Your task to perform on an android device: Search for alienware aurora on walmart, select the first entry, add it to the cart, then select checkout. Image 0: 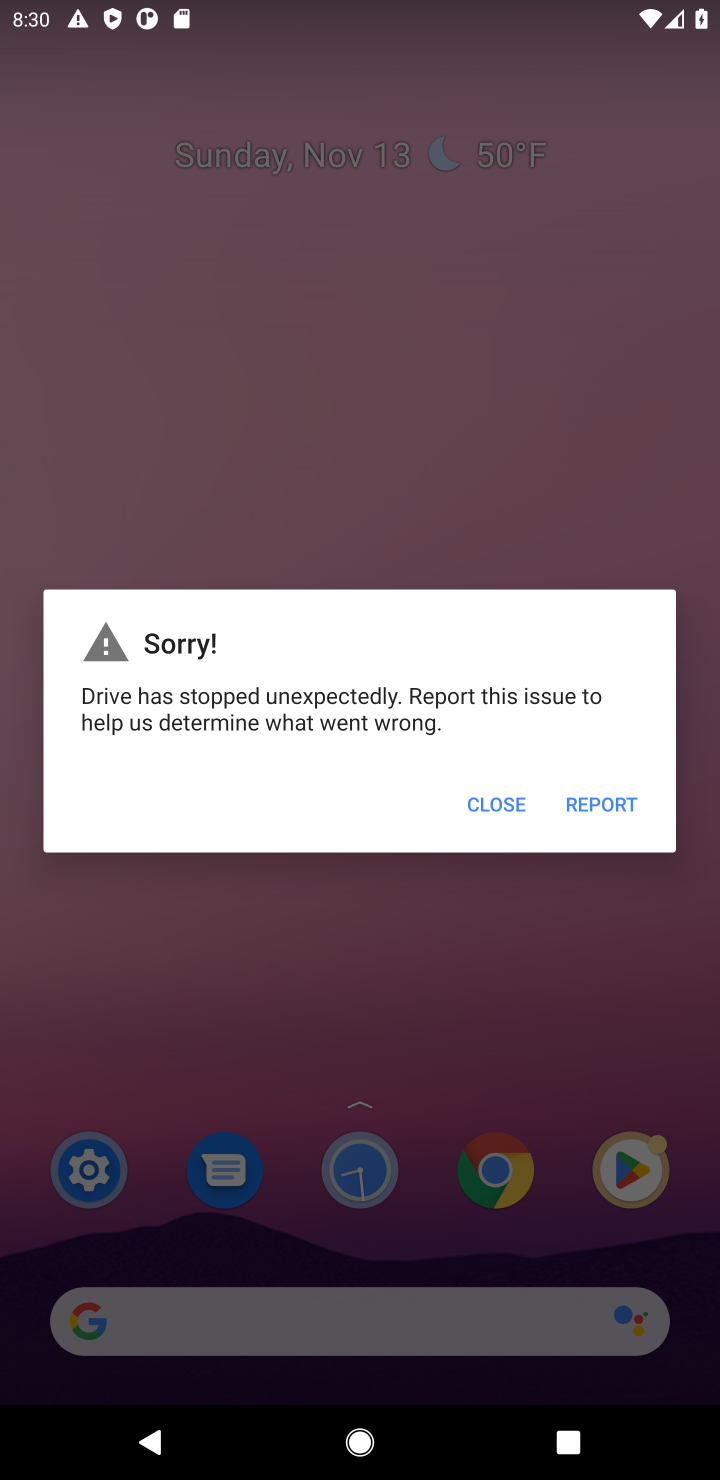
Step 0: press home button
Your task to perform on an android device: Search for alienware aurora on walmart, select the first entry, add it to the cart, then select checkout. Image 1: 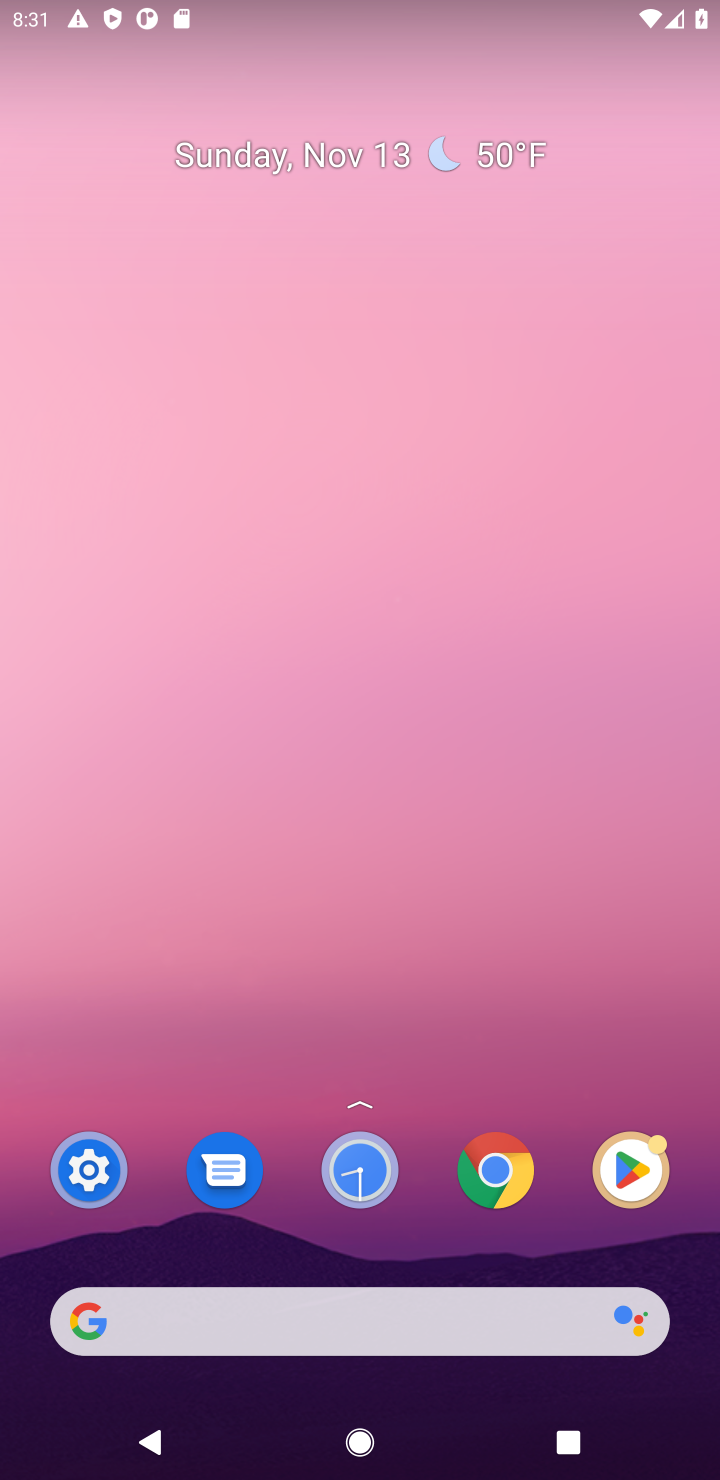
Step 1: click (381, 1325)
Your task to perform on an android device: Search for alienware aurora on walmart, select the first entry, add it to the cart, then select checkout. Image 2: 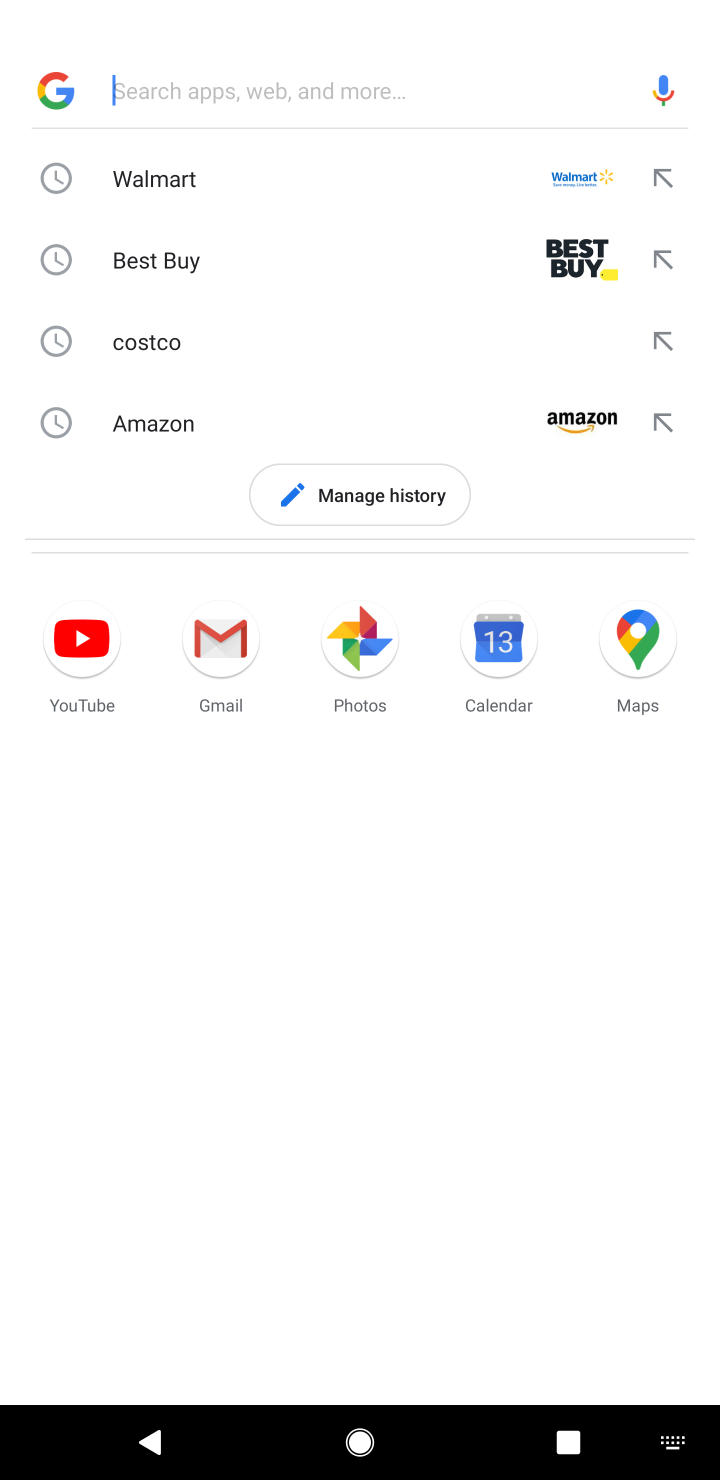
Step 2: type "walmart"
Your task to perform on an android device: Search for alienware aurora on walmart, select the first entry, add it to the cart, then select checkout. Image 3: 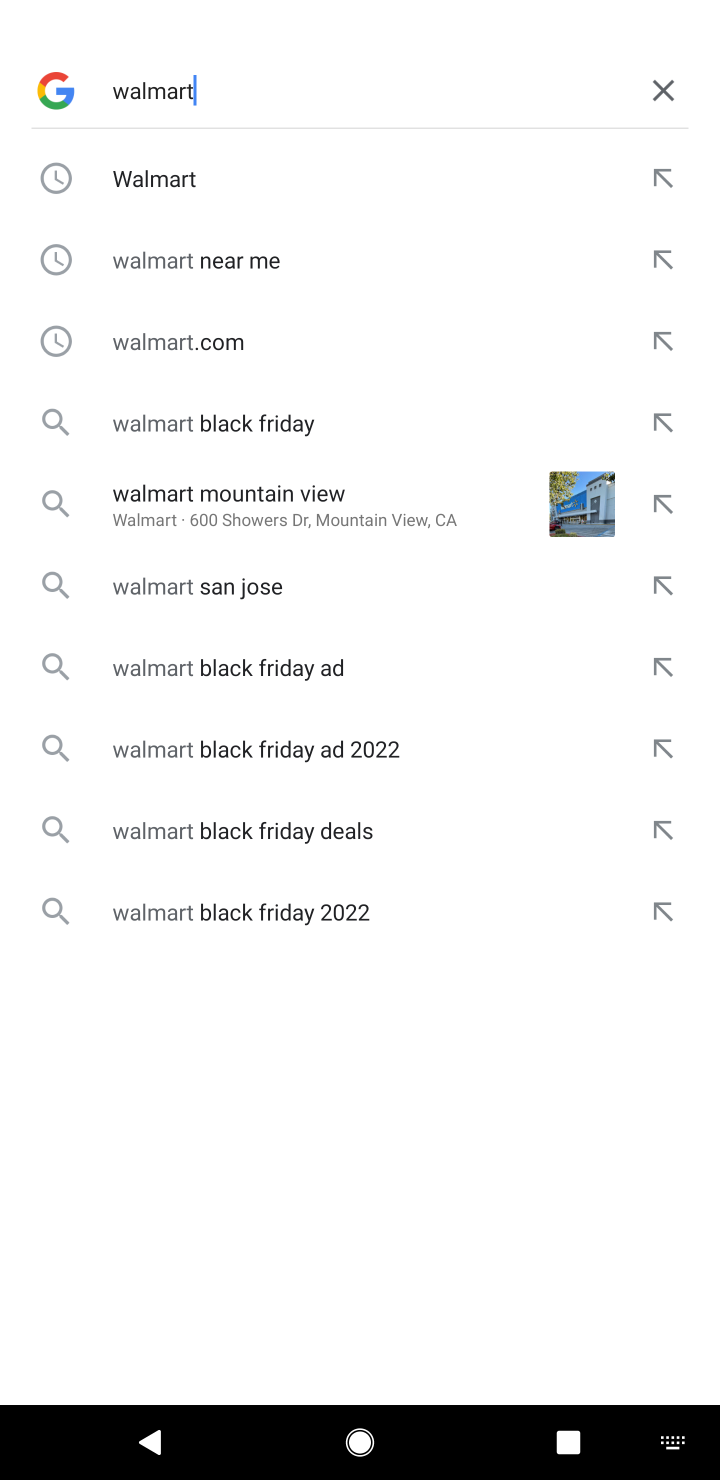
Step 3: click (305, 189)
Your task to perform on an android device: Search for alienware aurora on walmart, select the first entry, add it to the cart, then select checkout. Image 4: 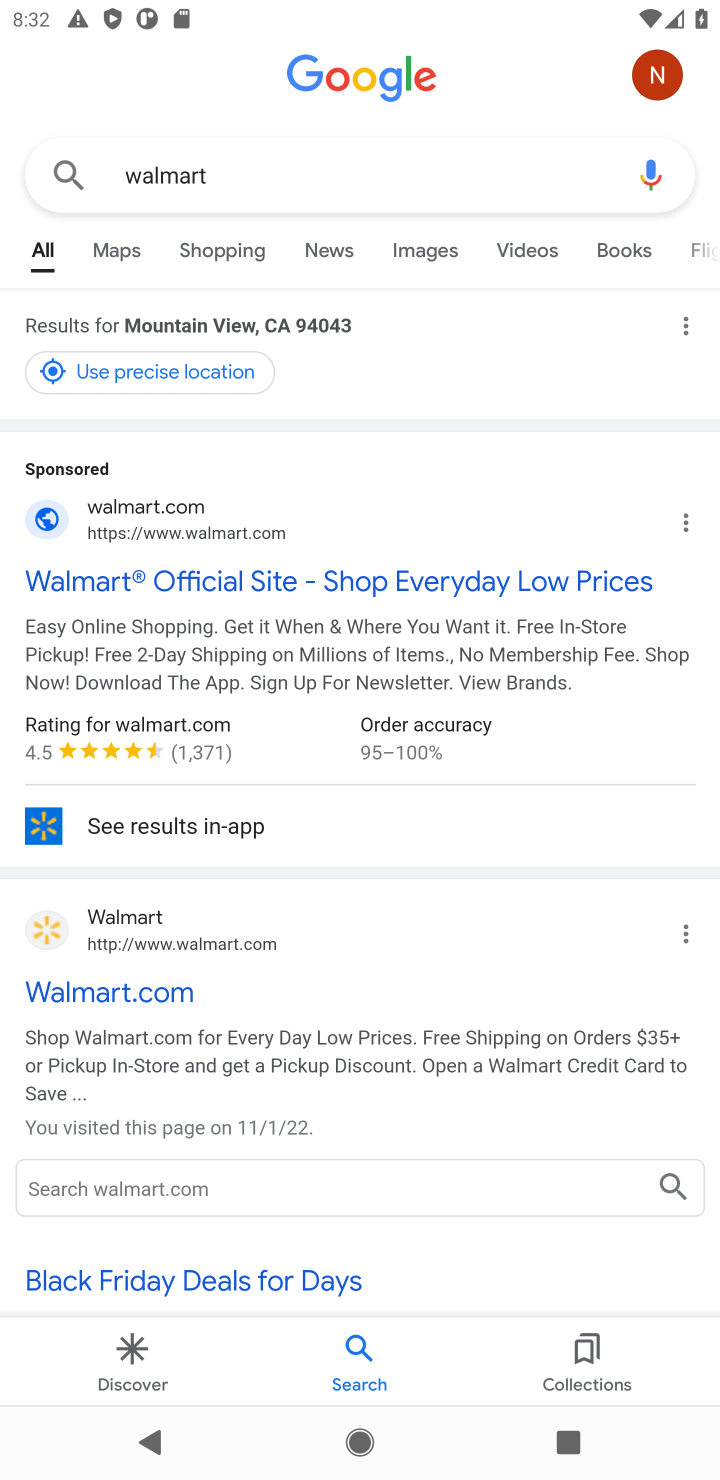
Step 4: click (211, 556)
Your task to perform on an android device: Search for alienware aurora on walmart, select the first entry, add it to the cart, then select checkout. Image 5: 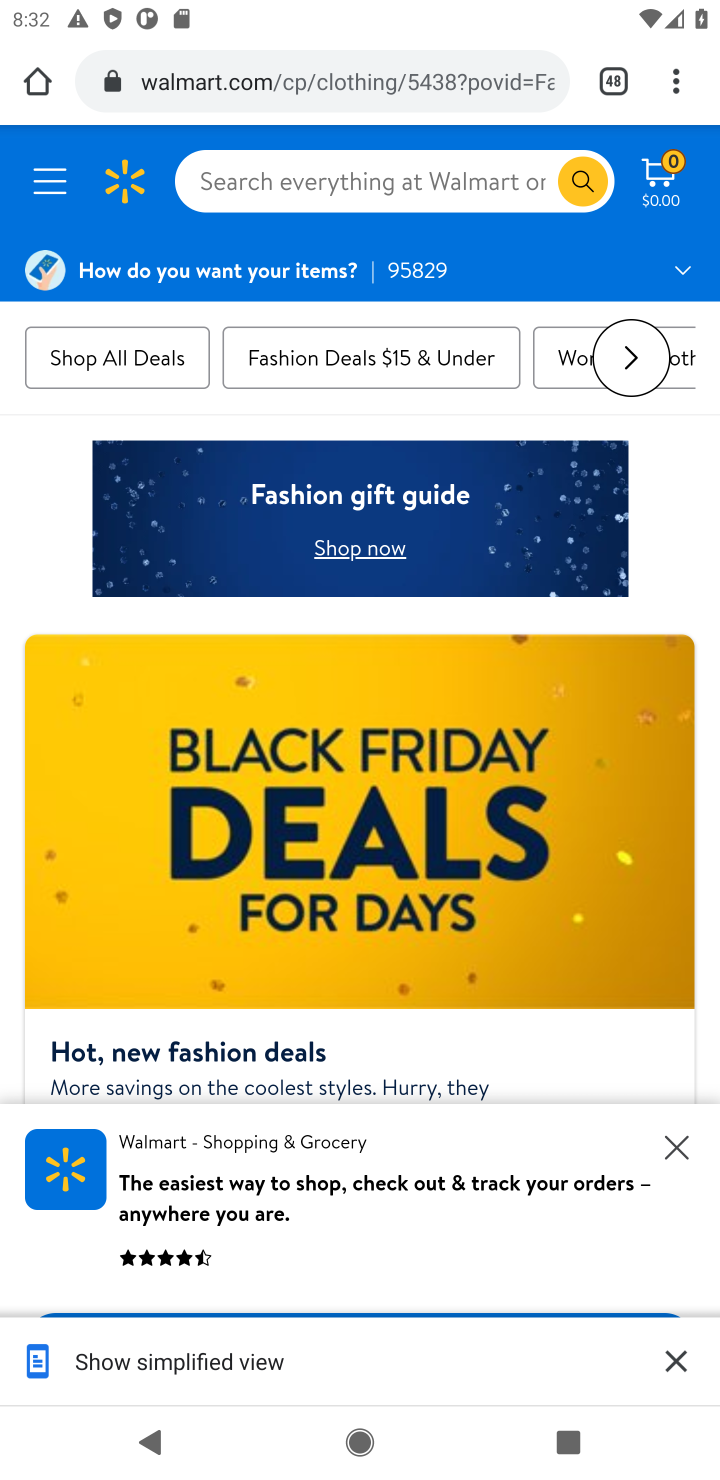
Step 5: task complete